Your task to perform on an android device: toggle sleep mode Image 0: 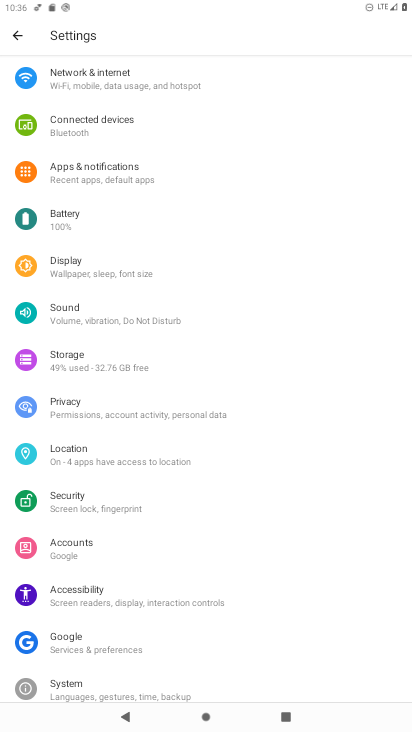
Step 0: click (81, 278)
Your task to perform on an android device: toggle sleep mode Image 1: 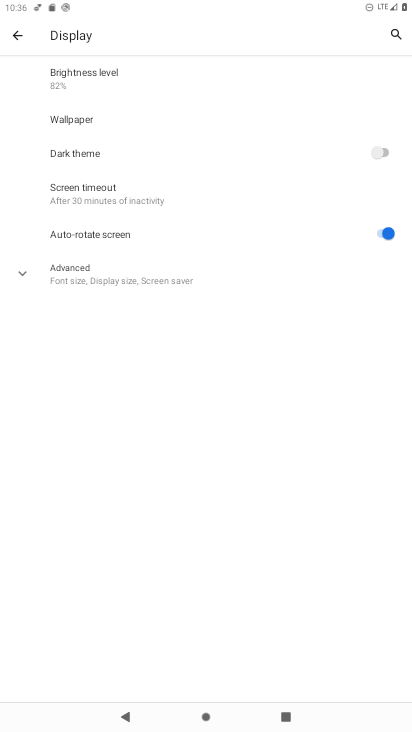
Step 1: click (159, 269)
Your task to perform on an android device: toggle sleep mode Image 2: 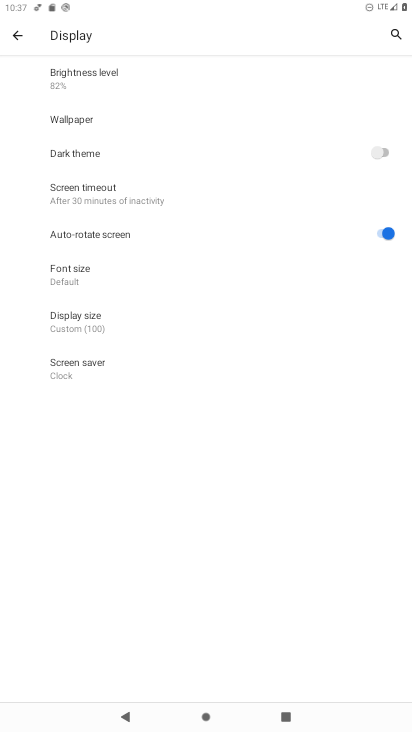
Step 2: task complete